Your task to perform on an android device: Go to ESPN.com Image 0: 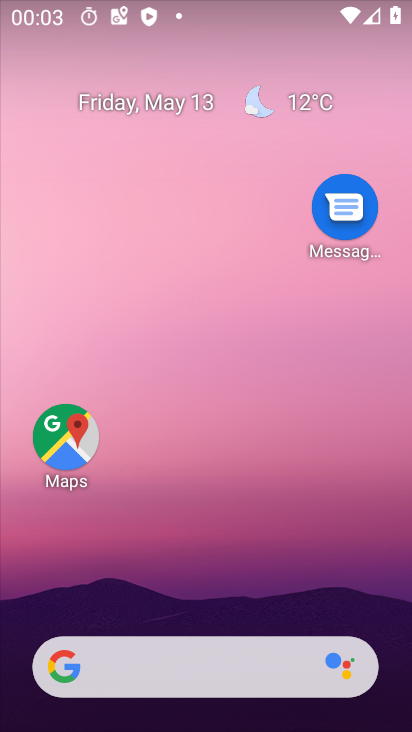
Step 0: drag from (265, 476) to (279, 59)
Your task to perform on an android device: Go to ESPN.com Image 1: 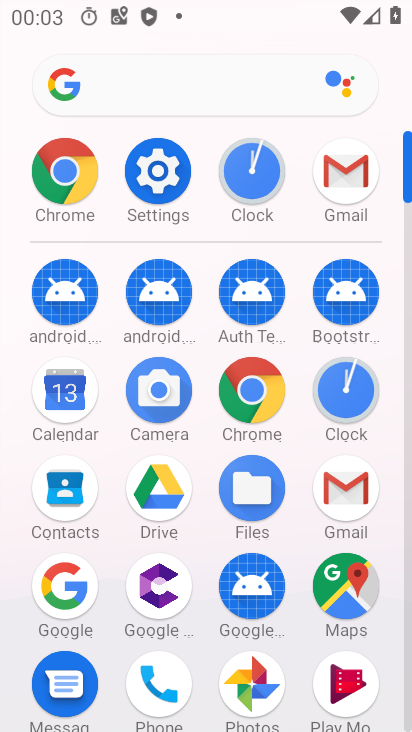
Step 1: click (250, 375)
Your task to perform on an android device: Go to ESPN.com Image 2: 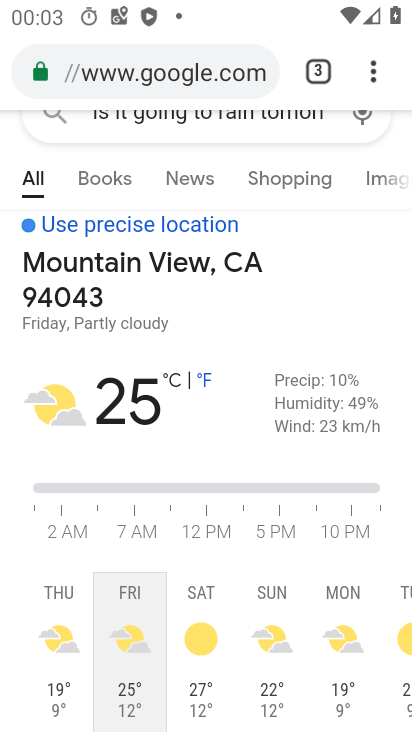
Step 2: click (222, 82)
Your task to perform on an android device: Go to ESPN.com Image 3: 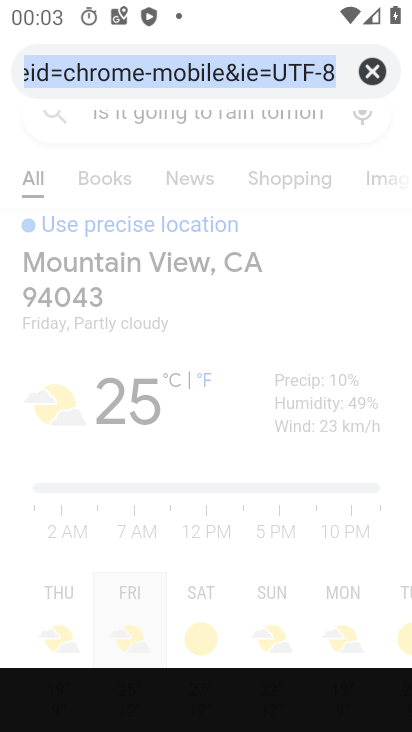
Step 3: click (222, 82)
Your task to perform on an android device: Go to ESPN.com Image 4: 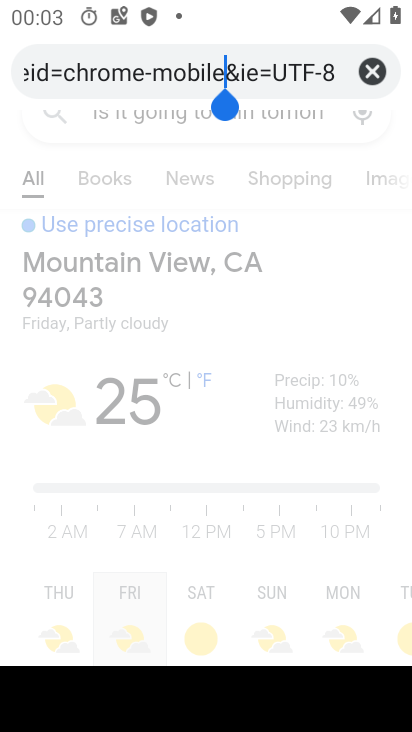
Step 4: click (362, 68)
Your task to perform on an android device: Go to ESPN.com Image 5: 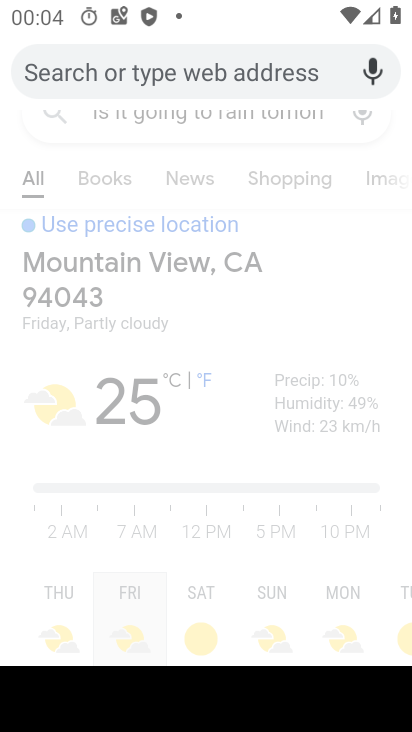
Step 5: type " ESPN.com"
Your task to perform on an android device: Go to ESPN.com Image 6: 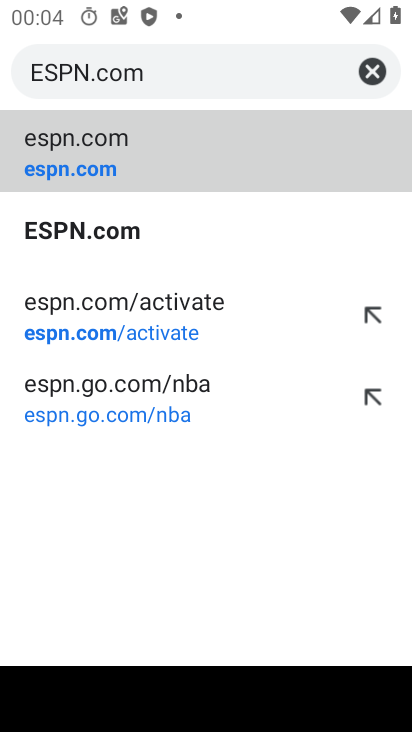
Step 6: click (104, 166)
Your task to perform on an android device: Go to ESPN.com Image 7: 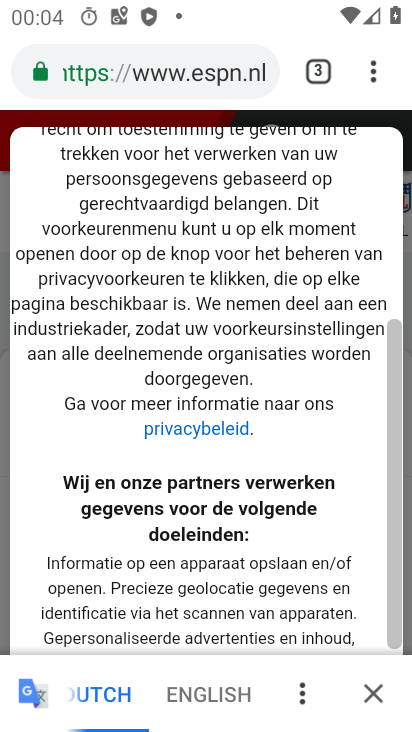
Step 7: task complete